Your task to perform on an android device: Open Reddit.com Image 0: 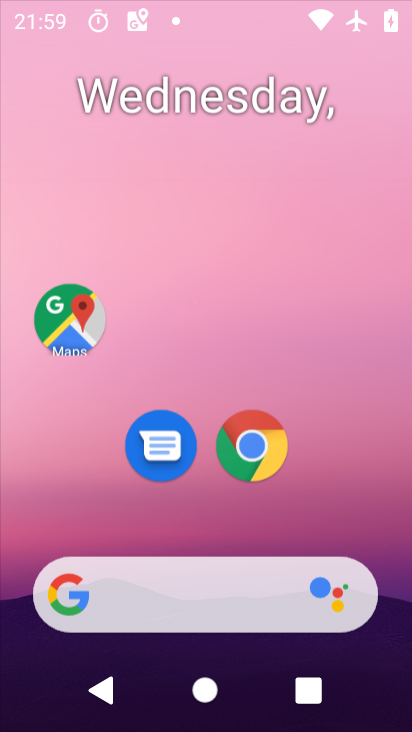
Step 0: press home button
Your task to perform on an android device: Open Reddit.com Image 1: 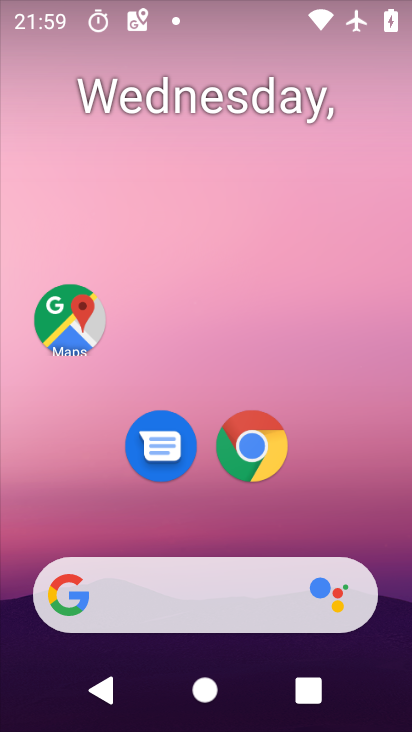
Step 1: click (256, 449)
Your task to perform on an android device: Open Reddit.com Image 2: 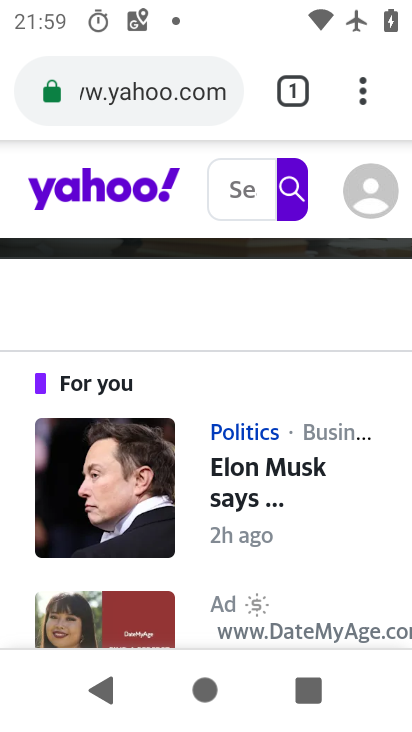
Step 2: drag from (361, 98) to (243, 174)
Your task to perform on an android device: Open Reddit.com Image 3: 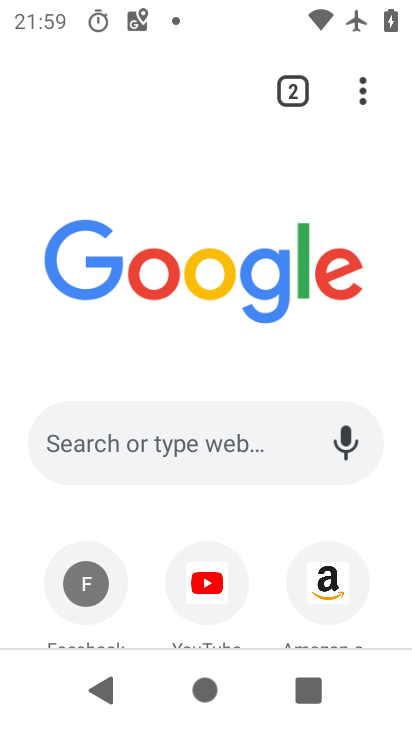
Step 3: click (175, 441)
Your task to perform on an android device: Open Reddit.com Image 4: 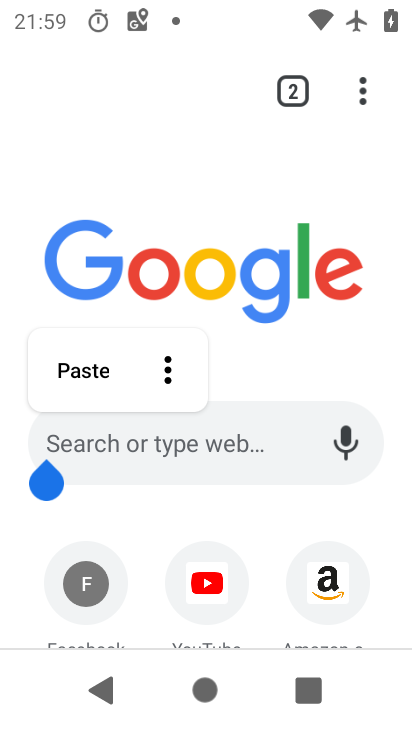
Step 4: click (124, 436)
Your task to perform on an android device: Open Reddit.com Image 5: 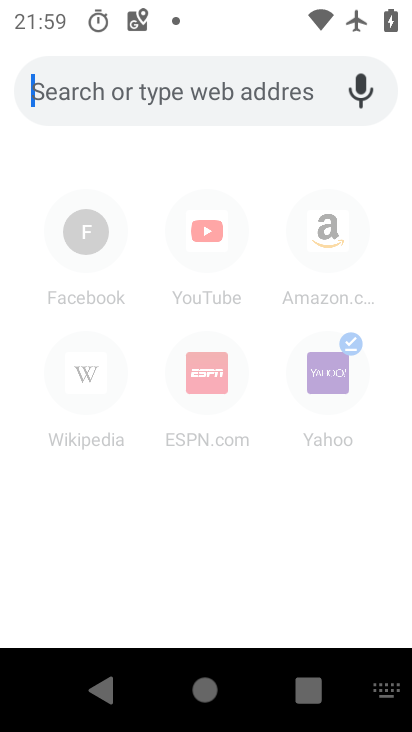
Step 5: type "reddit.com"
Your task to perform on an android device: Open Reddit.com Image 6: 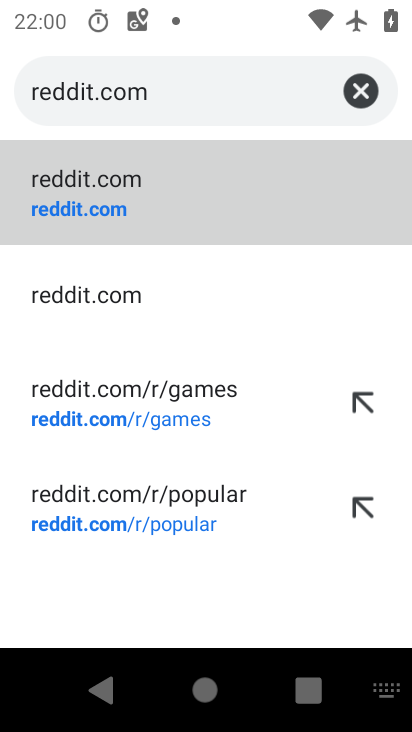
Step 6: click (113, 208)
Your task to perform on an android device: Open Reddit.com Image 7: 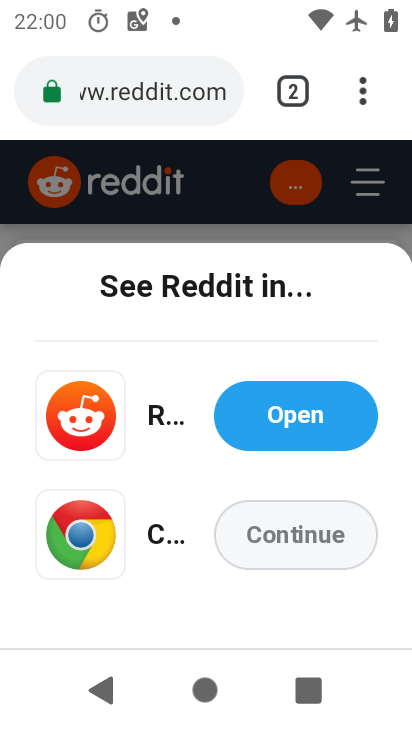
Step 7: task complete